Your task to perform on an android device: What is the news today? Image 0: 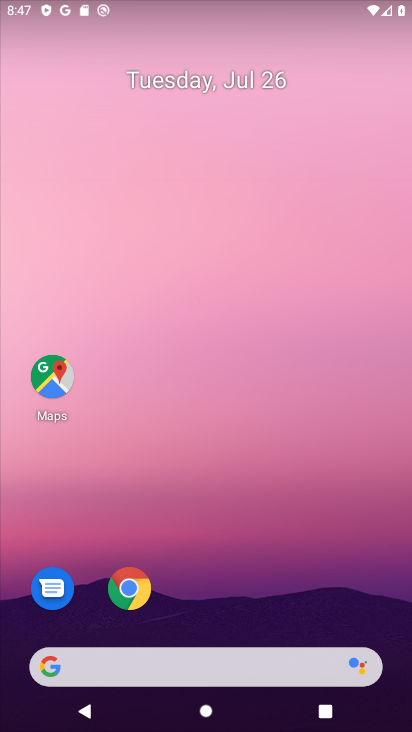
Step 0: press home button
Your task to perform on an android device: What is the news today? Image 1: 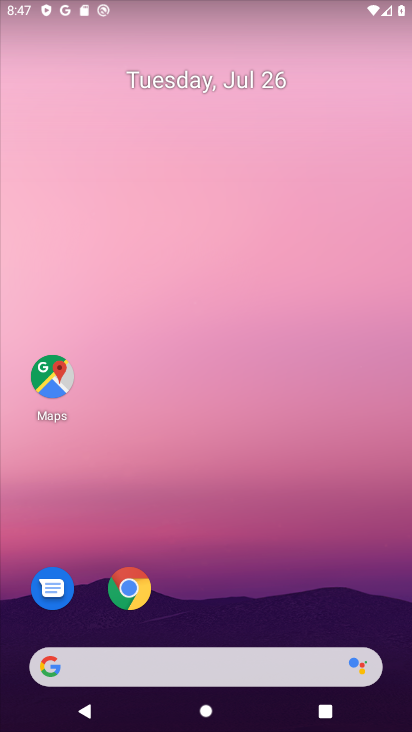
Step 1: task complete